Your task to perform on an android device: install app "LinkedIn" Image 0: 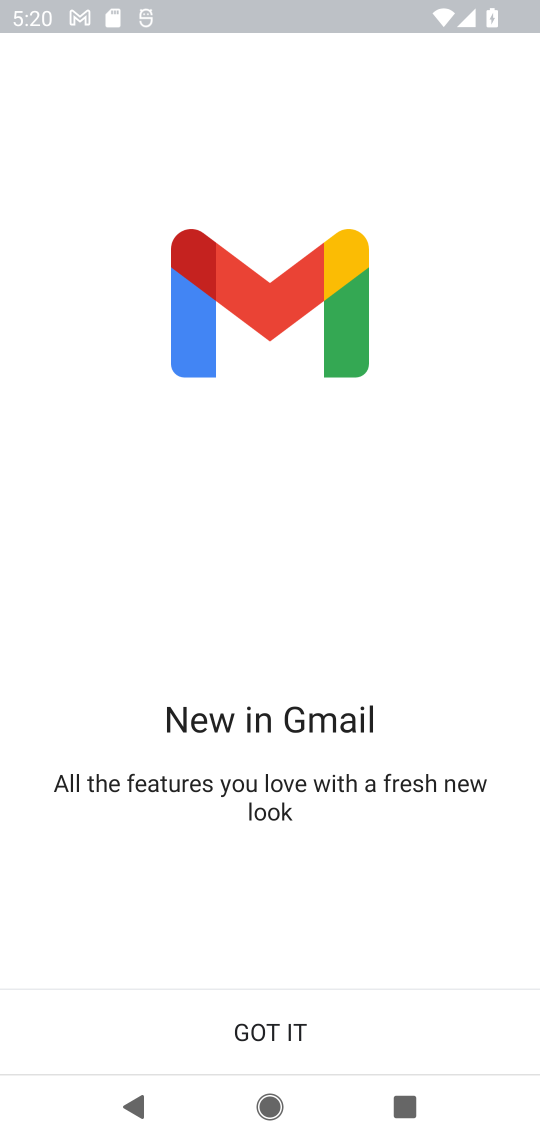
Step 0: press home button
Your task to perform on an android device: install app "LinkedIn" Image 1: 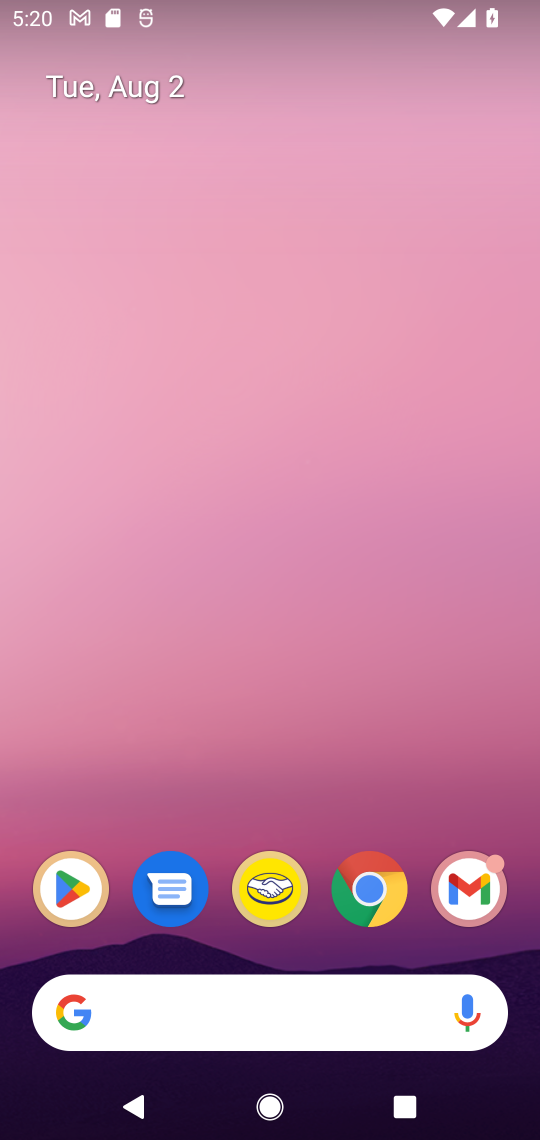
Step 1: drag from (423, 814) to (390, 105)
Your task to perform on an android device: install app "LinkedIn" Image 2: 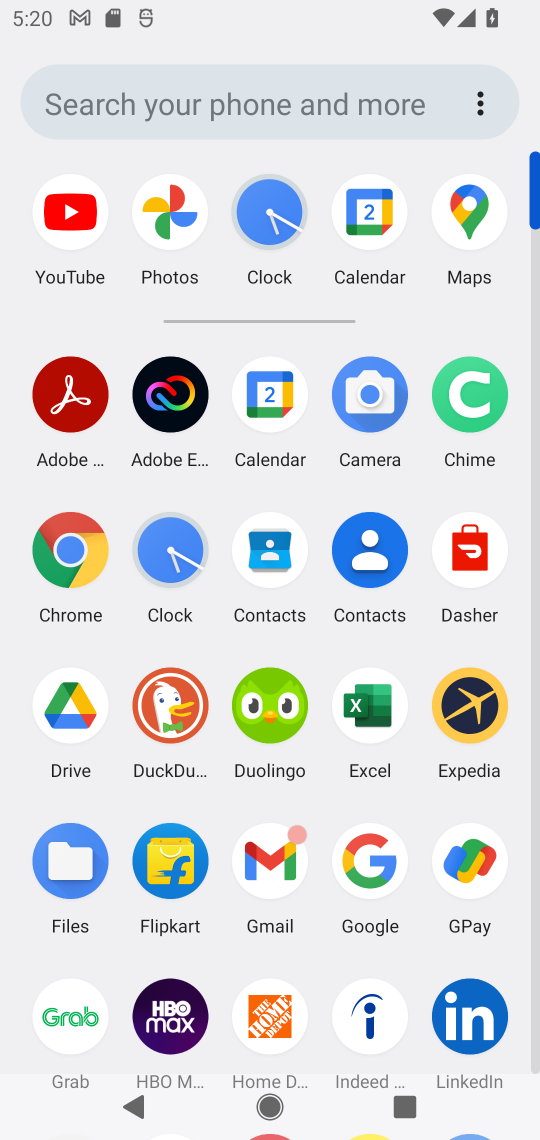
Step 2: drag from (509, 960) to (517, 387)
Your task to perform on an android device: install app "LinkedIn" Image 3: 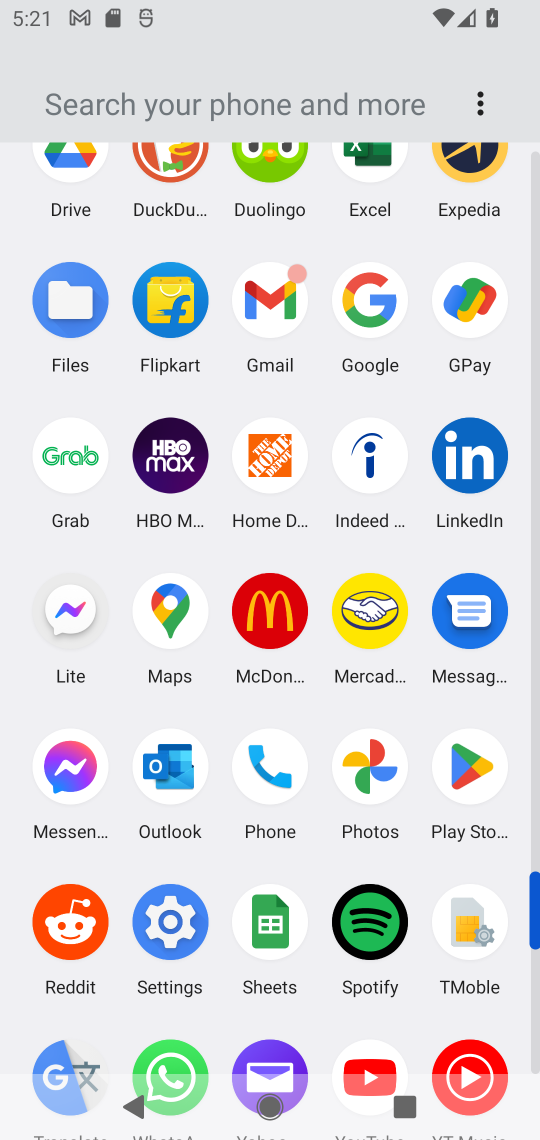
Step 3: click (466, 787)
Your task to perform on an android device: install app "LinkedIn" Image 4: 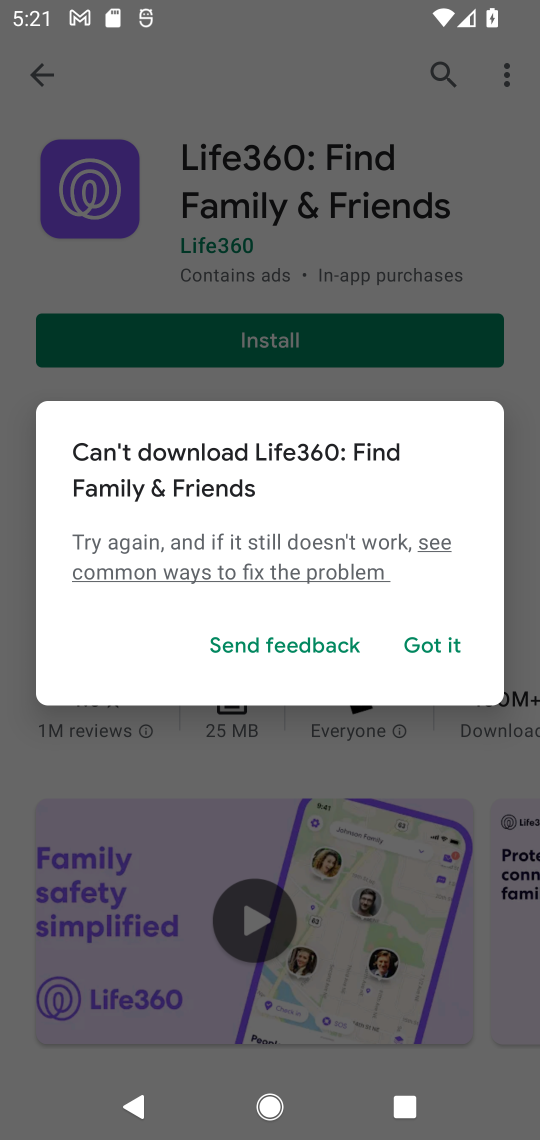
Step 4: press back button
Your task to perform on an android device: install app "LinkedIn" Image 5: 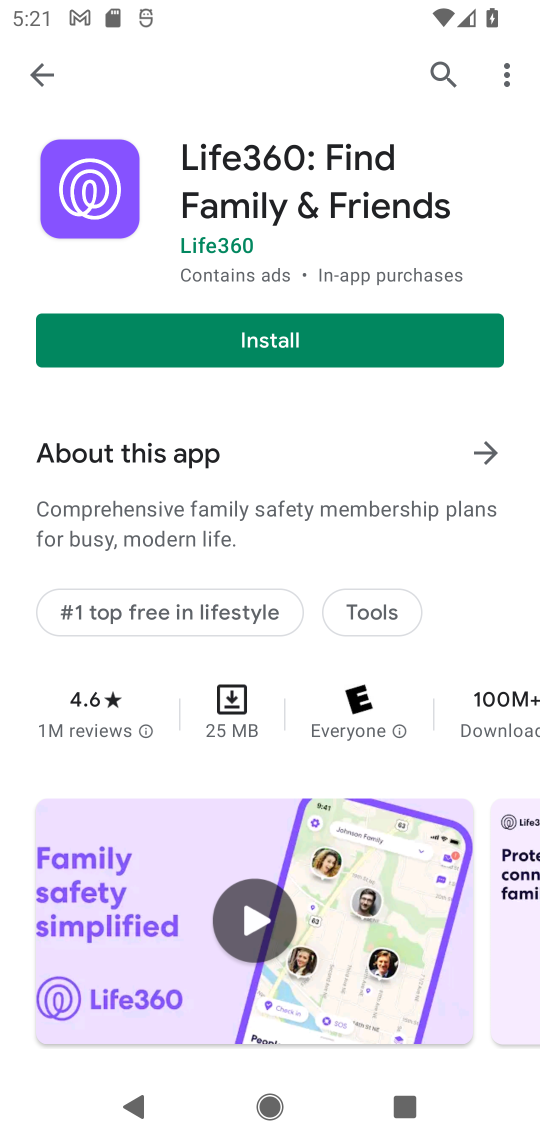
Step 5: click (442, 68)
Your task to perform on an android device: install app "LinkedIn" Image 6: 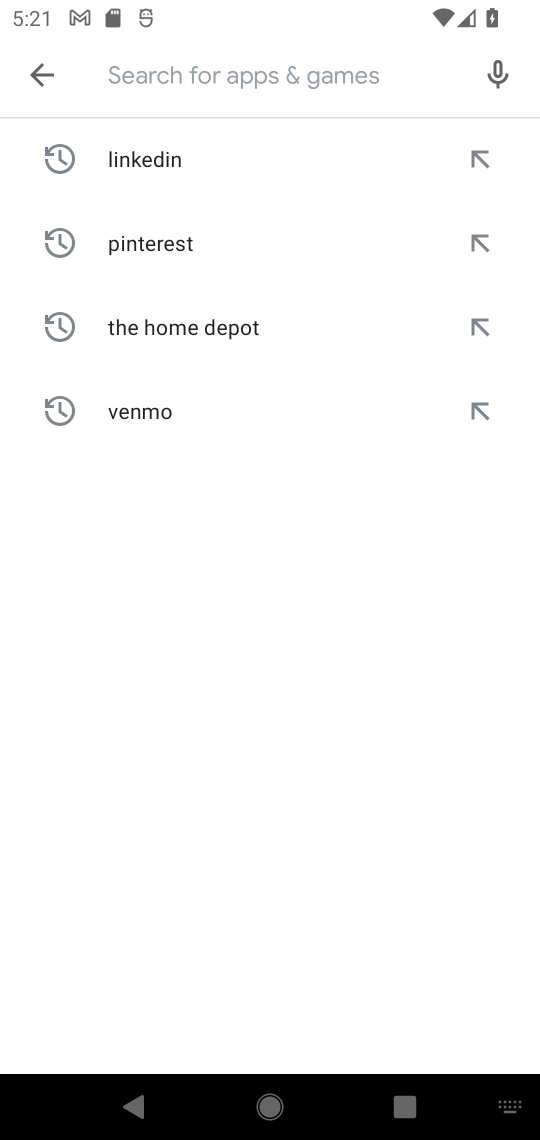
Step 6: click (245, 163)
Your task to perform on an android device: install app "LinkedIn" Image 7: 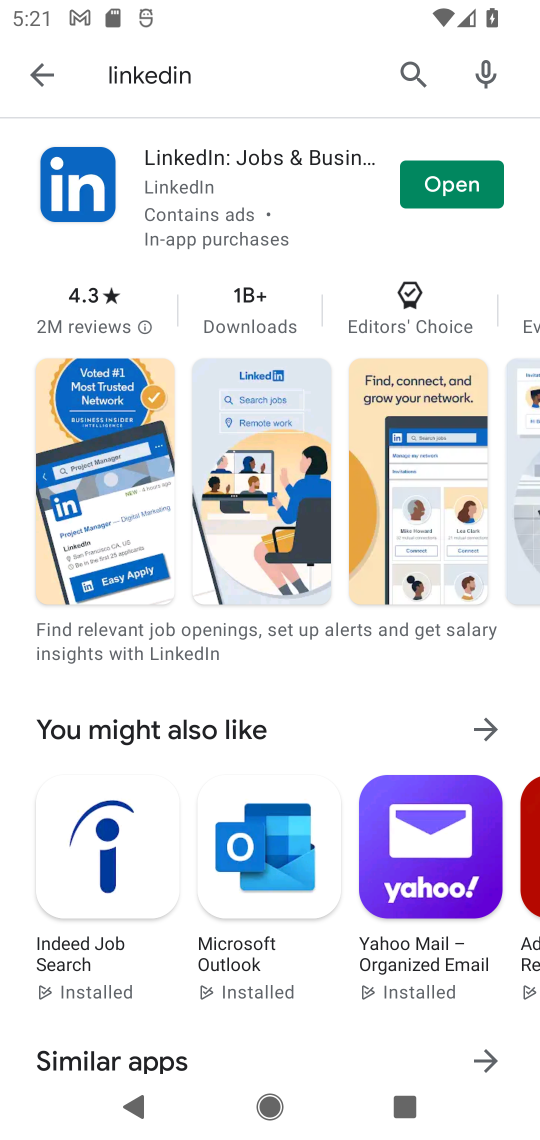
Step 7: task complete